Your task to perform on an android device: find snoozed emails in the gmail app Image 0: 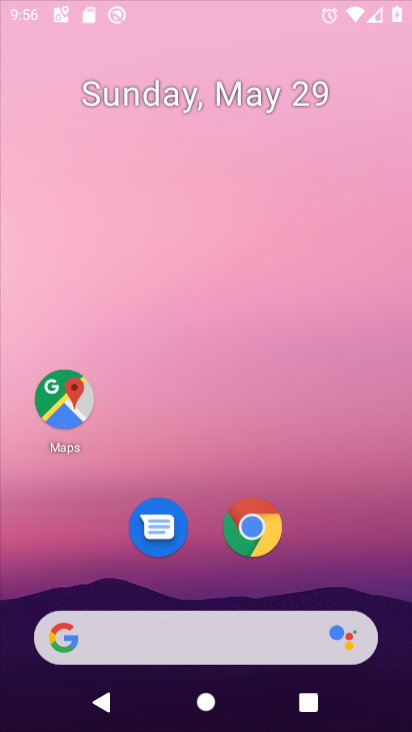
Step 0: press home button
Your task to perform on an android device: find snoozed emails in the gmail app Image 1: 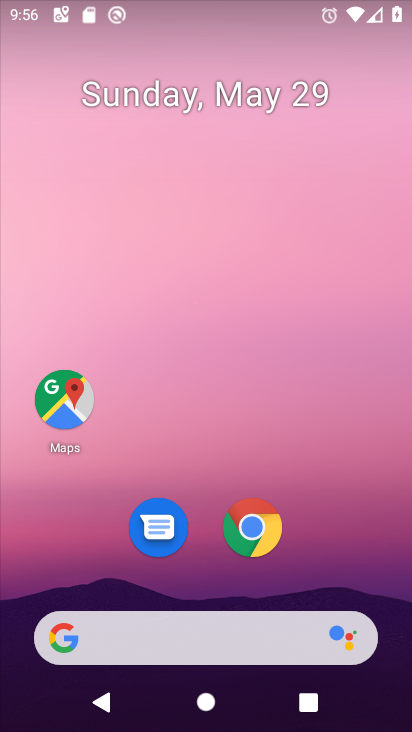
Step 1: drag from (205, 587) to (216, 70)
Your task to perform on an android device: find snoozed emails in the gmail app Image 2: 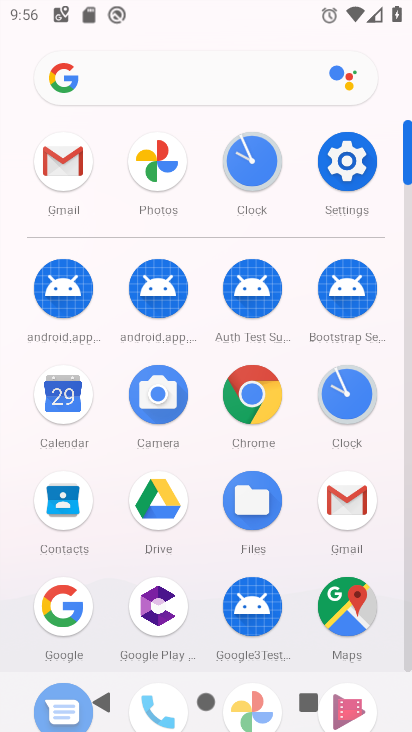
Step 2: click (66, 150)
Your task to perform on an android device: find snoozed emails in the gmail app Image 3: 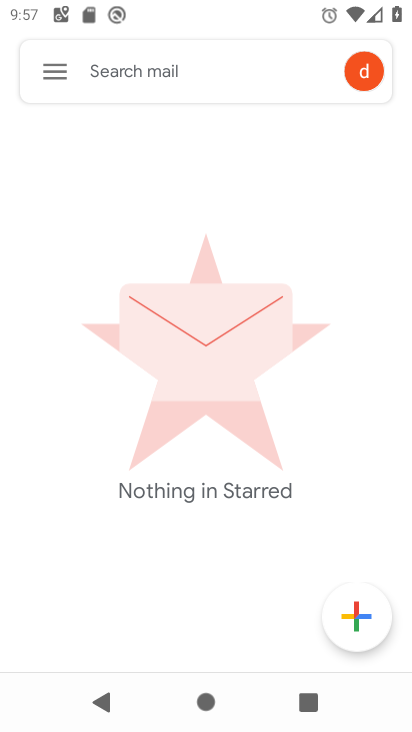
Step 3: click (46, 73)
Your task to perform on an android device: find snoozed emails in the gmail app Image 4: 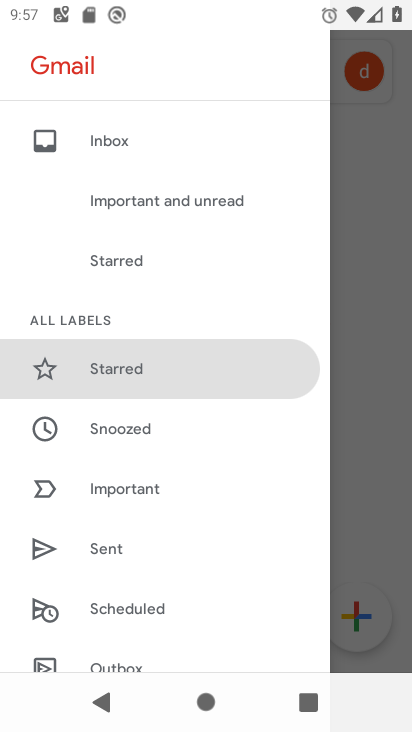
Step 4: click (156, 421)
Your task to perform on an android device: find snoozed emails in the gmail app Image 5: 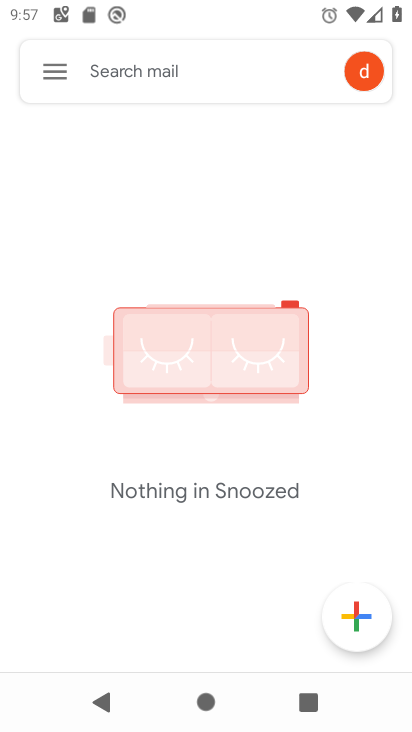
Step 5: click (59, 73)
Your task to perform on an android device: find snoozed emails in the gmail app Image 6: 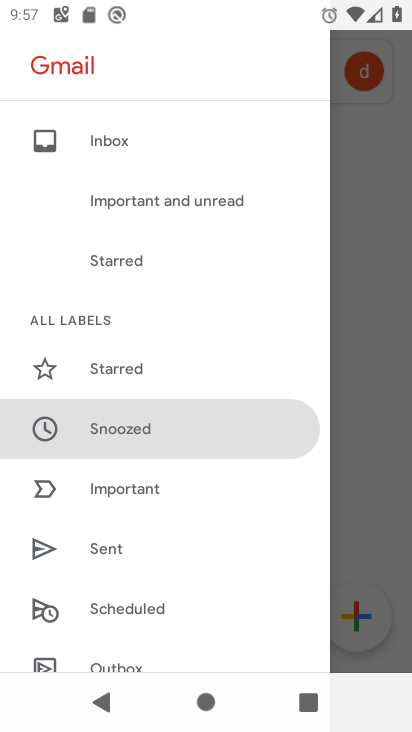
Step 6: click (141, 417)
Your task to perform on an android device: find snoozed emails in the gmail app Image 7: 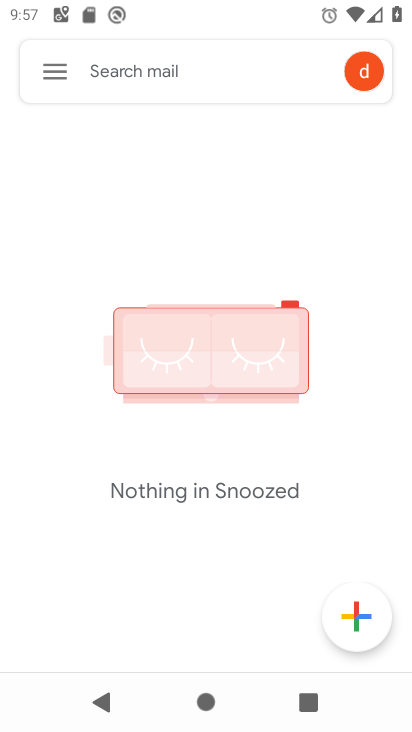
Step 7: task complete